Your task to perform on an android device: Turn off the flashlight Image 0: 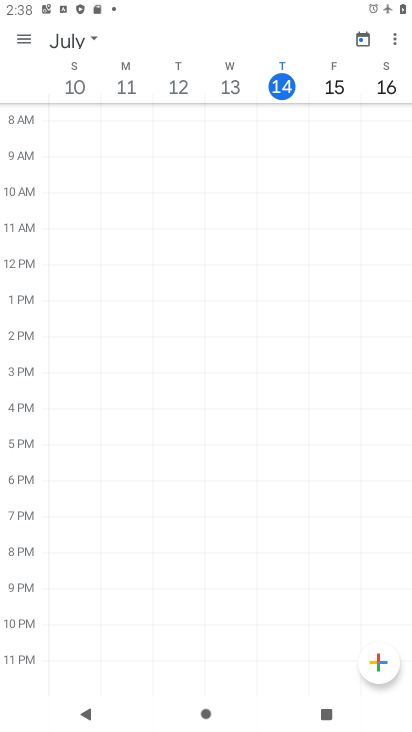
Step 0: press home button
Your task to perform on an android device: Turn off the flashlight Image 1: 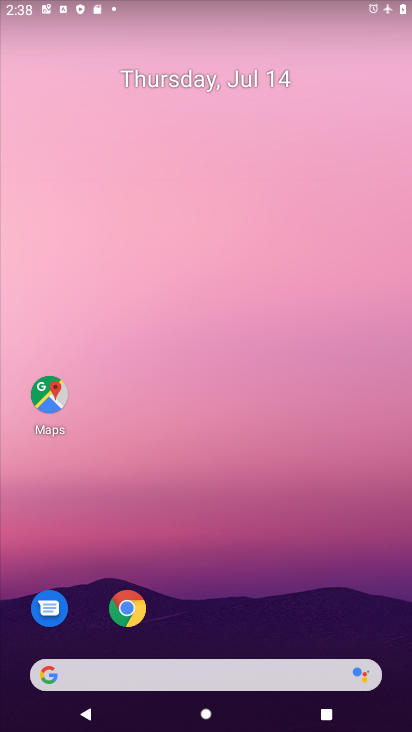
Step 1: drag from (219, 9) to (208, 389)
Your task to perform on an android device: Turn off the flashlight Image 2: 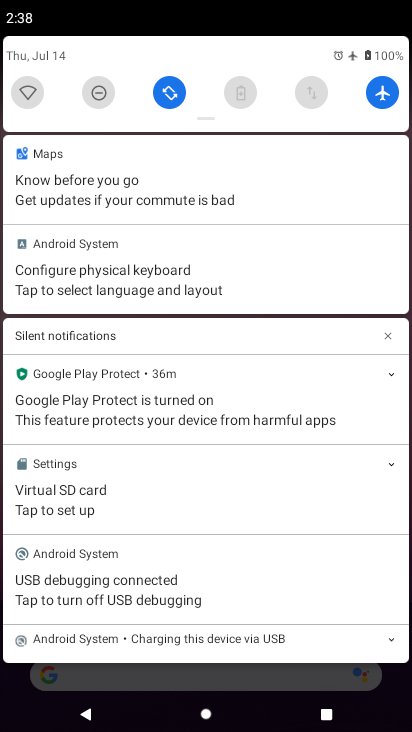
Step 2: drag from (206, 122) to (184, 450)
Your task to perform on an android device: Turn off the flashlight Image 3: 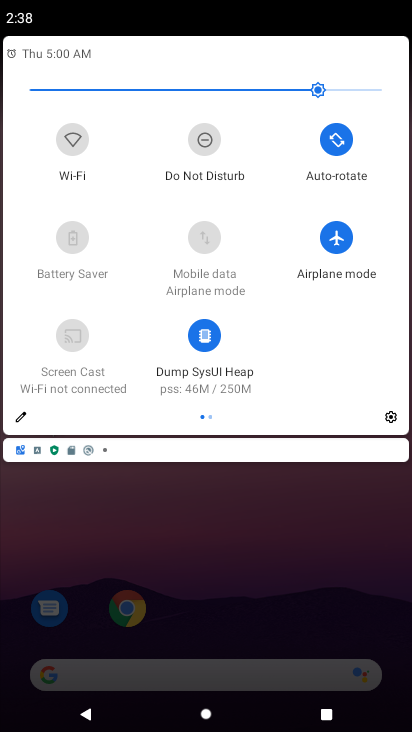
Step 3: click (15, 413)
Your task to perform on an android device: Turn off the flashlight Image 4: 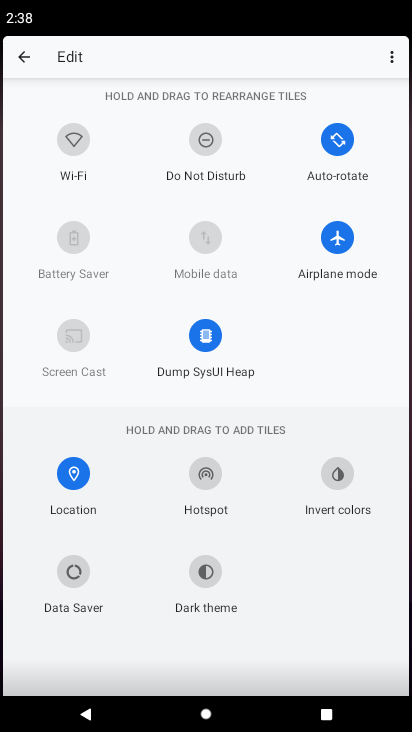
Step 4: task complete